Your task to perform on an android device: What is the recent news? Image 0: 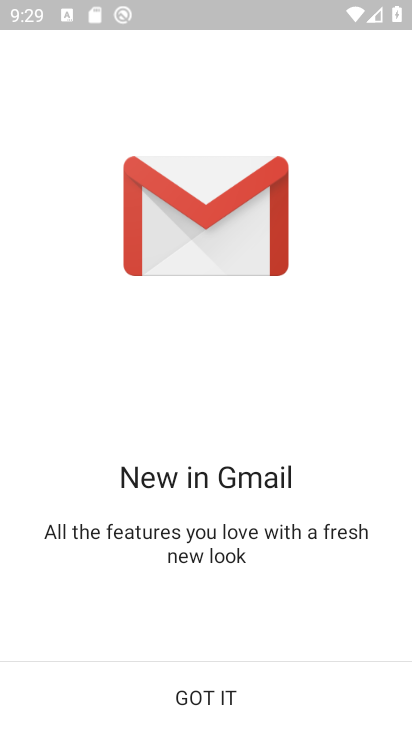
Step 0: press home button
Your task to perform on an android device: What is the recent news? Image 1: 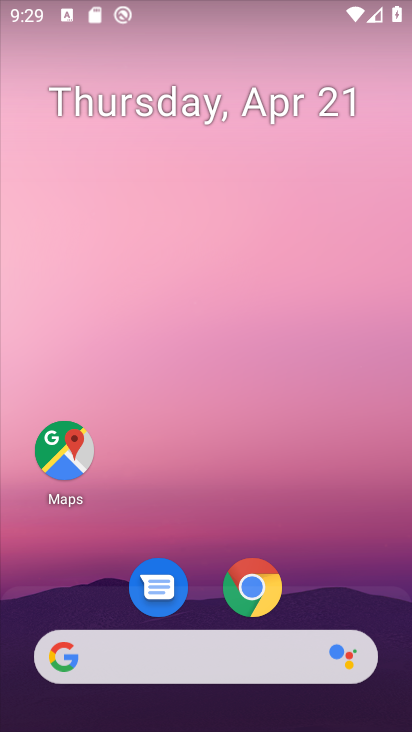
Step 1: click (125, 677)
Your task to perform on an android device: What is the recent news? Image 2: 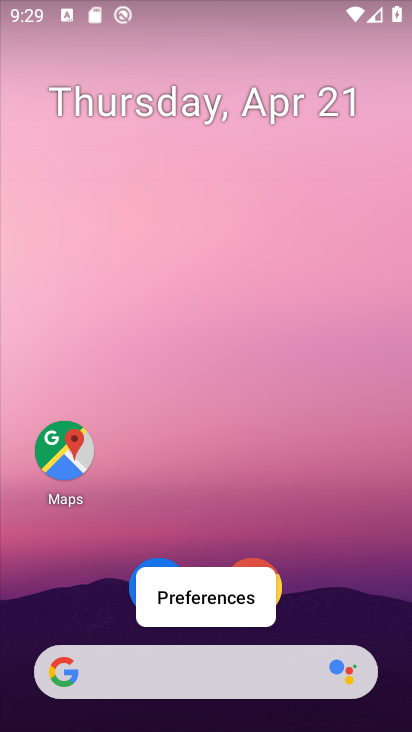
Step 2: click (174, 665)
Your task to perform on an android device: What is the recent news? Image 3: 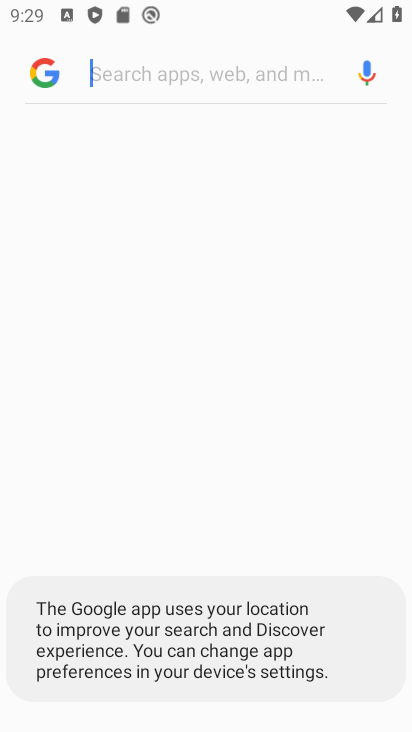
Step 3: click (170, 672)
Your task to perform on an android device: What is the recent news? Image 4: 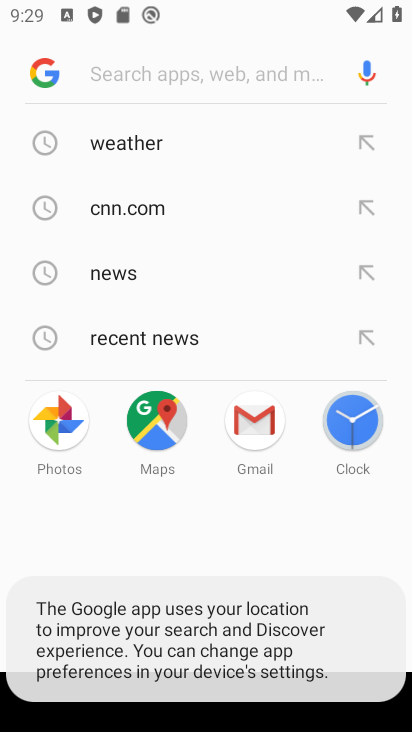
Step 4: click (100, 272)
Your task to perform on an android device: What is the recent news? Image 5: 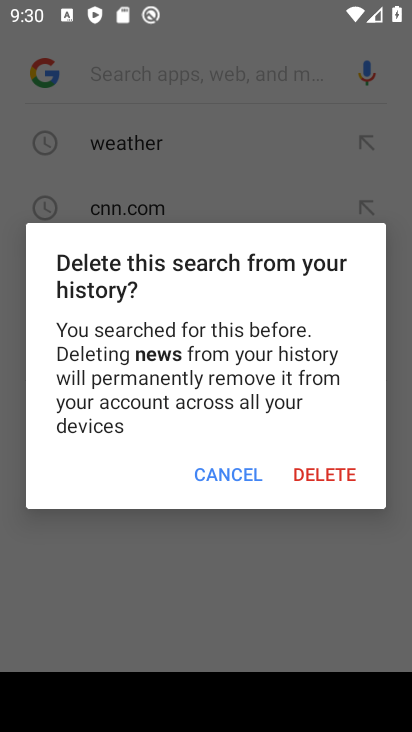
Step 5: click (210, 468)
Your task to perform on an android device: What is the recent news? Image 6: 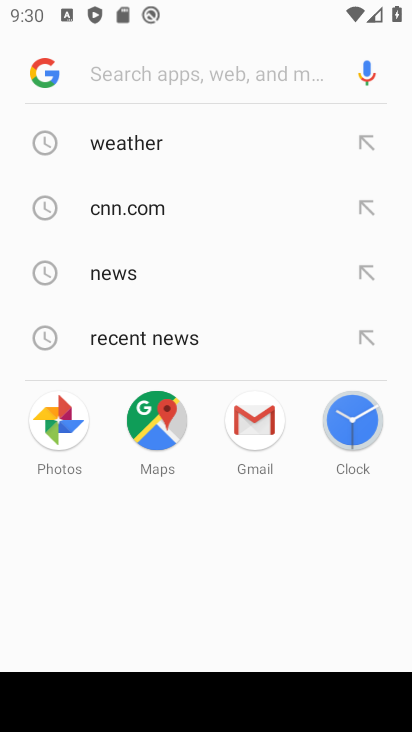
Step 6: click (92, 264)
Your task to perform on an android device: What is the recent news? Image 7: 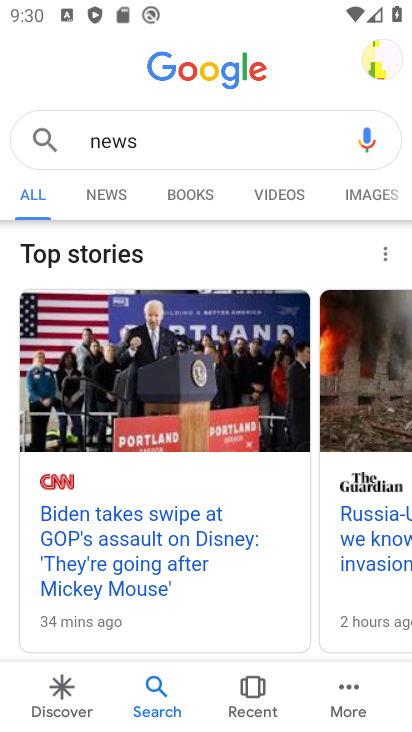
Step 7: task complete